Your task to perform on an android device: Show the shopping cart on costco.com. Add "logitech g pro" to the cart on costco.com, then select checkout. Image 0: 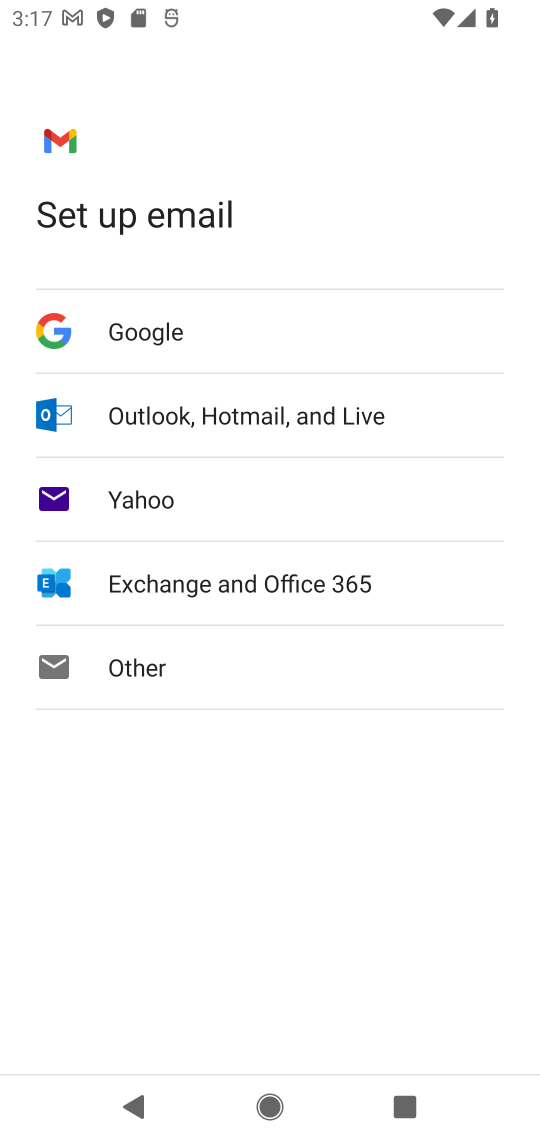
Step 0: press home button
Your task to perform on an android device: Show the shopping cart on costco.com. Add "logitech g pro" to the cart on costco.com, then select checkout. Image 1: 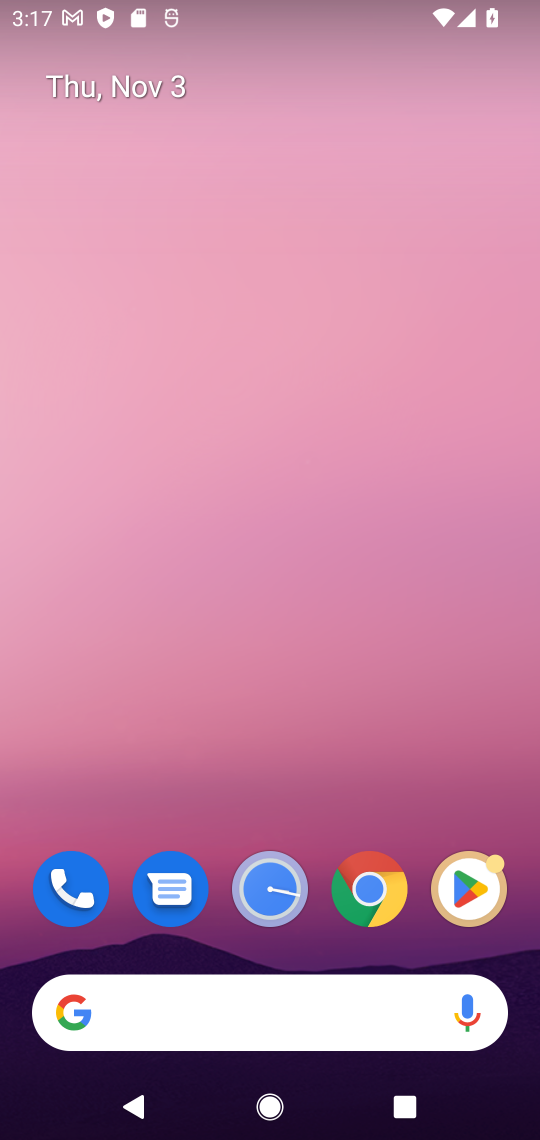
Step 1: click (362, 893)
Your task to perform on an android device: Show the shopping cart on costco.com. Add "logitech g pro" to the cart on costco.com, then select checkout. Image 2: 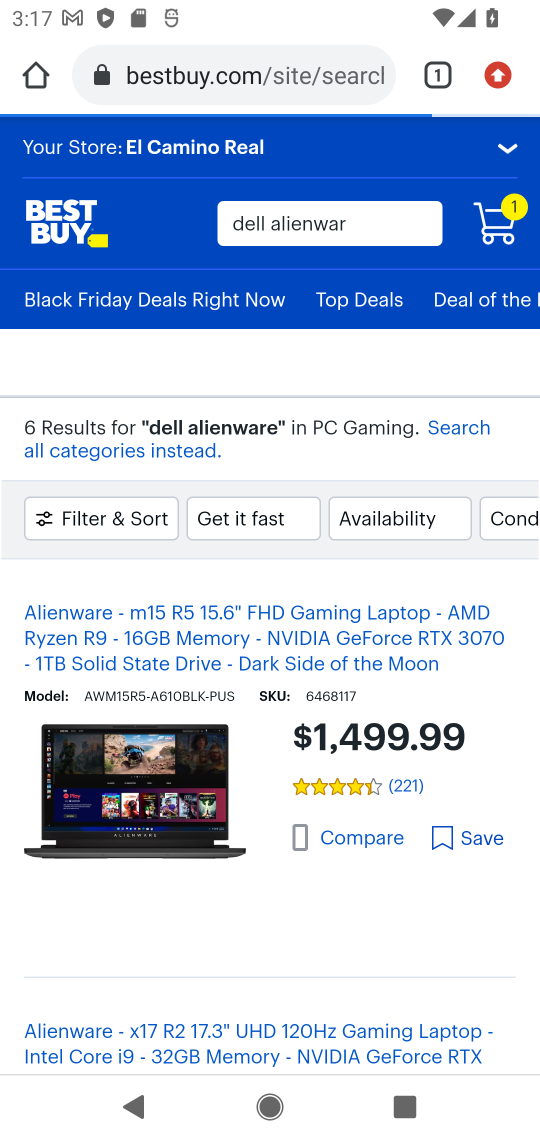
Step 2: click (246, 79)
Your task to perform on an android device: Show the shopping cart on costco.com. Add "logitech g pro" to the cart on costco.com, then select checkout. Image 3: 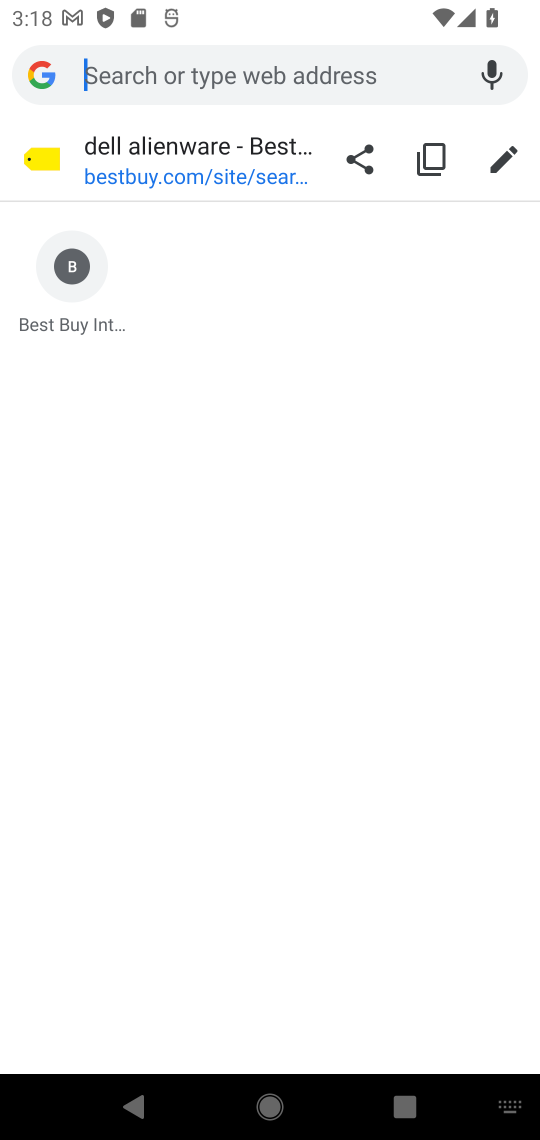
Step 3: type "costco.com"
Your task to perform on an android device: Show the shopping cart on costco.com. Add "logitech g pro" to the cart on costco.com, then select checkout. Image 4: 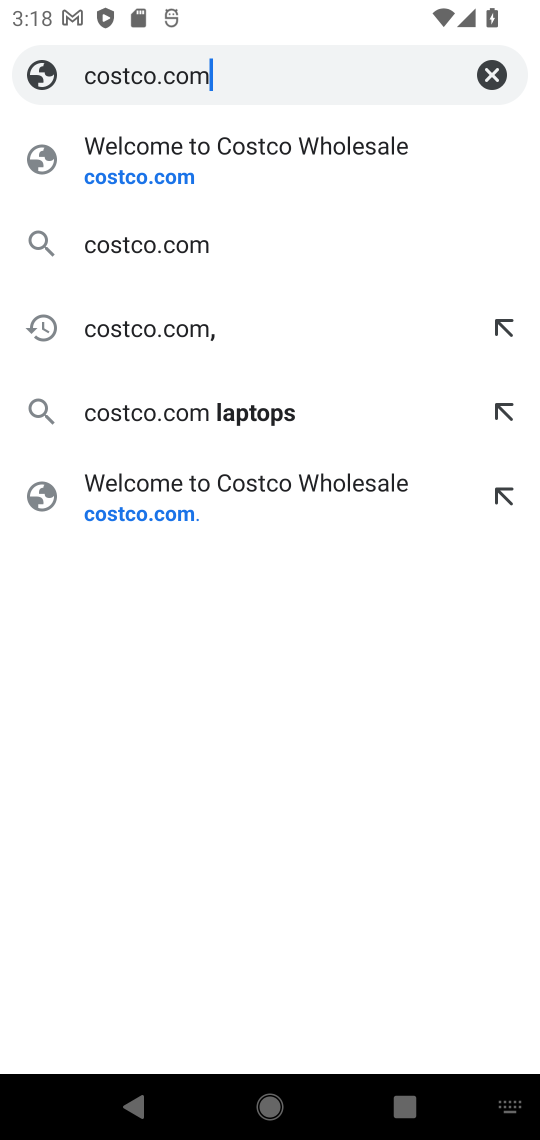
Step 4: click (250, 166)
Your task to perform on an android device: Show the shopping cart on costco.com. Add "logitech g pro" to the cart on costco.com, then select checkout. Image 5: 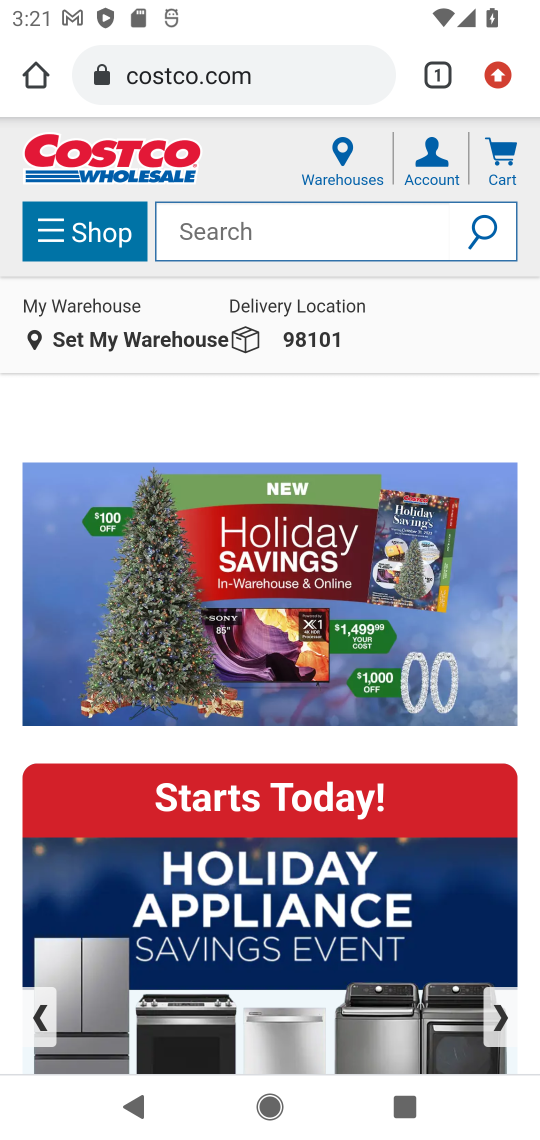
Step 5: task complete